Your task to perform on an android device: Open the Play Movies app and select the watchlist tab. Image 0: 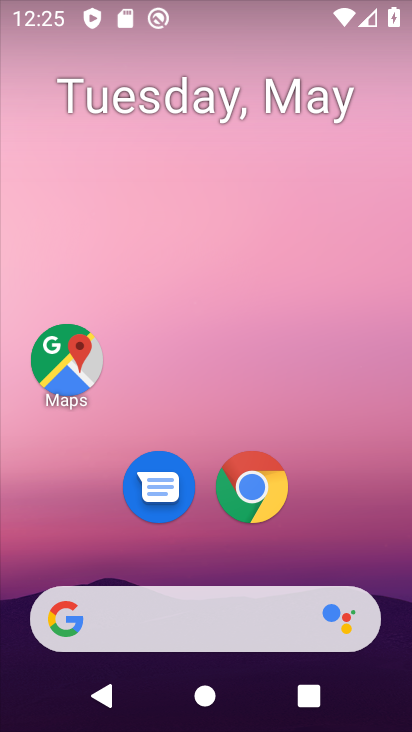
Step 0: drag from (259, 687) to (248, 232)
Your task to perform on an android device: Open the Play Movies app and select the watchlist tab. Image 1: 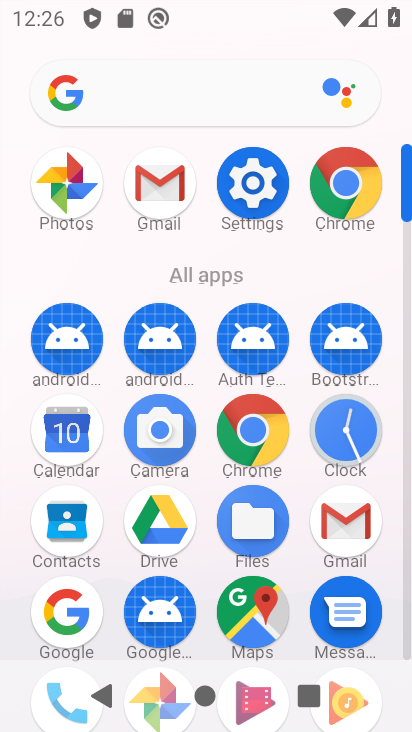
Step 1: drag from (189, 541) to (211, 280)
Your task to perform on an android device: Open the Play Movies app and select the watchlist tab. Image 2: 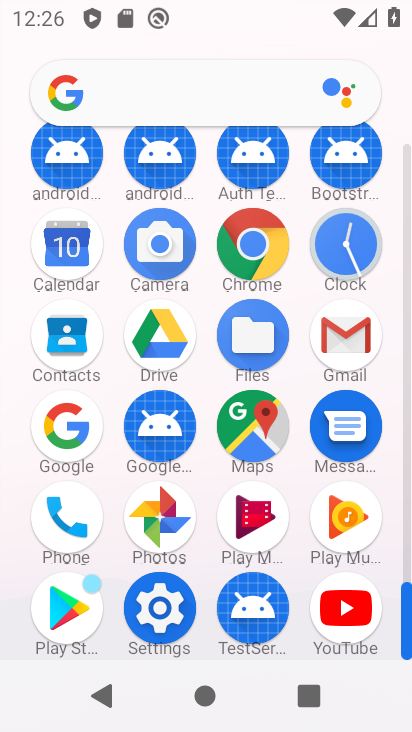
Step 2: click (269, 504)
Your task to perform on an android device: Open the Play Movies app and select the watchlist tab. Image 3: 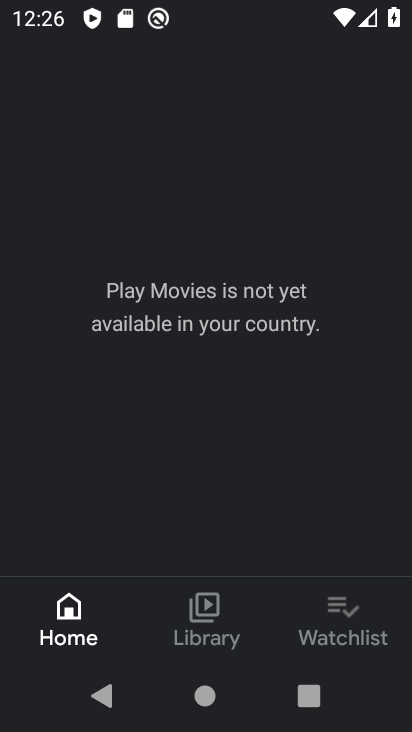
Step 3: click (349, 631)
Your task to perform on an android device: Open the Play Movies app and select the watchlist tab. Image 4: 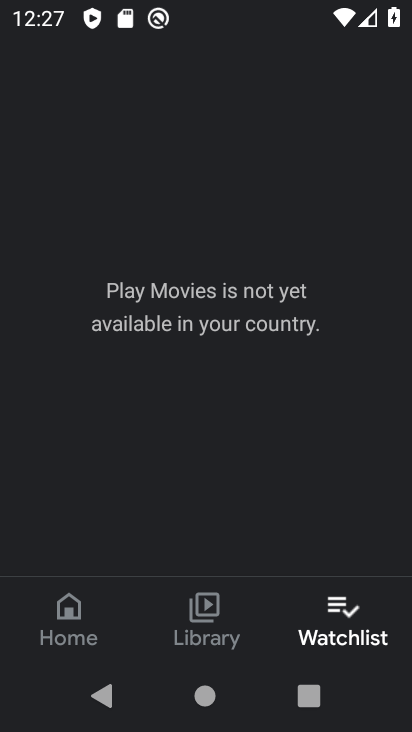
Step 4: task complete